Your task to perform on an android device: Is it going to rain this weekend? Image 0: 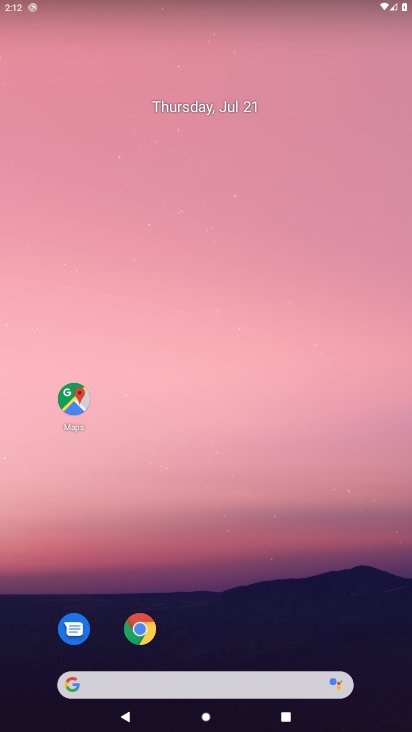
Step 0: click (115, 683)
Your task to perform on an android device: Is it going to rain this weekend? Image 1: 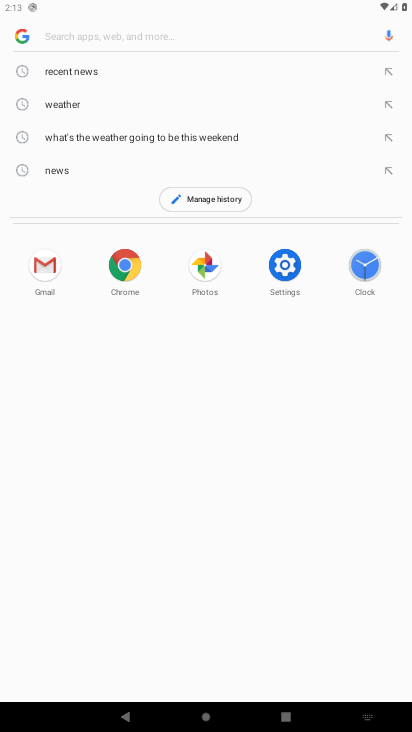
Step 1: type "Is it going to rain this weekend?"
Your task to perform on an android device: Is it going to rain this weekend? Image 2: 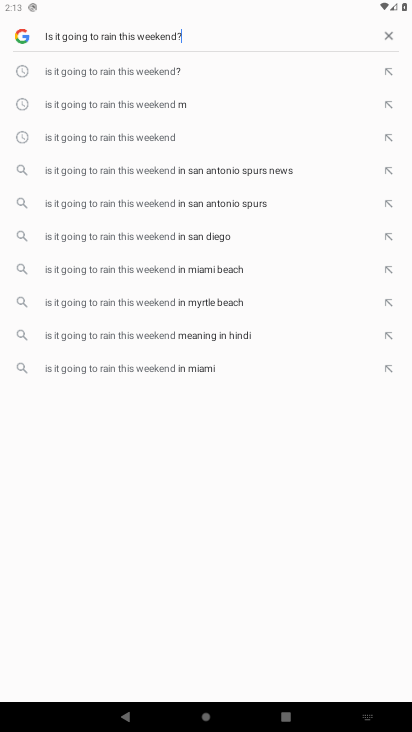
Step 2: type ""
Your task to perform on an android device: Is it going to rain this weekend? Image 3: 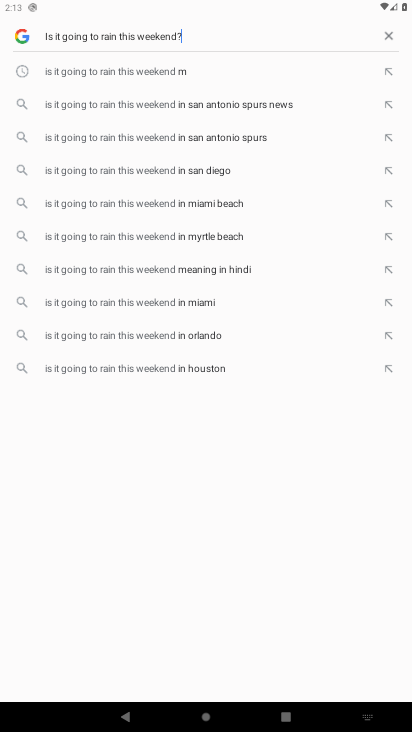
Step 3: type ""
Your task to perform on an android device: Is it going to rain this weekend? Image 4: 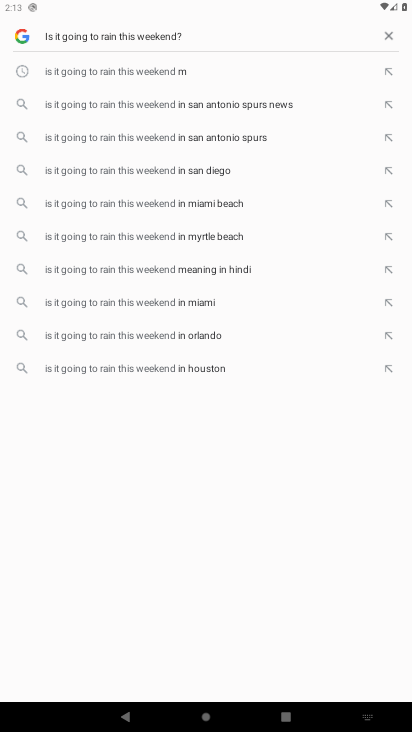
Step 4: type ""
Your task to perform on an android device: Is it going to rain this weekend? Image 5: 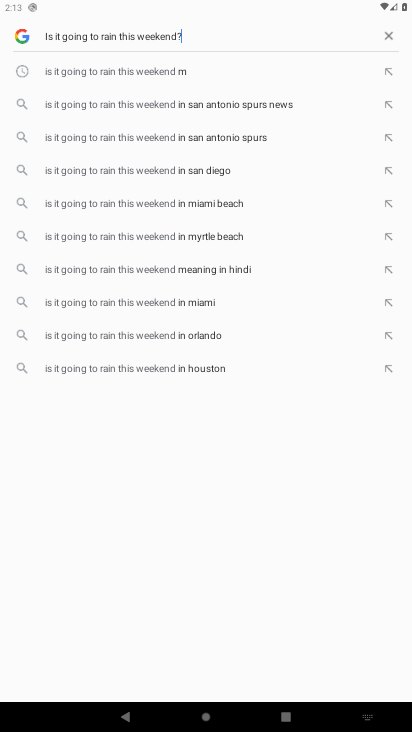
Step 5: task complete